Your task to perform on an android device: Search for pizza restaurants on Maps Image 0: 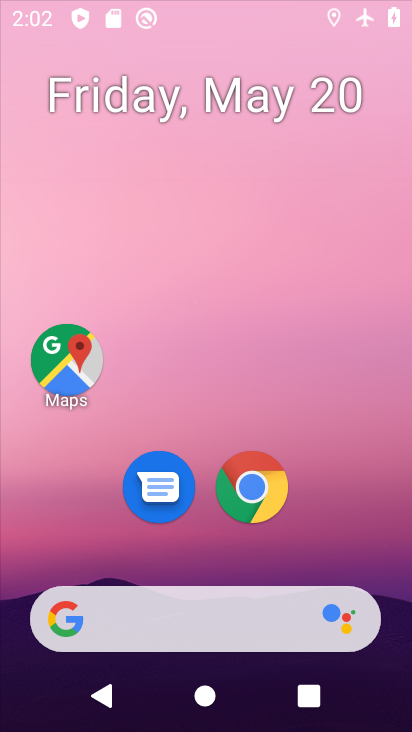
Step 0: click (264, 262)
Your task to perform on an android device: Search for pizza restaurants on Maps Image 1: 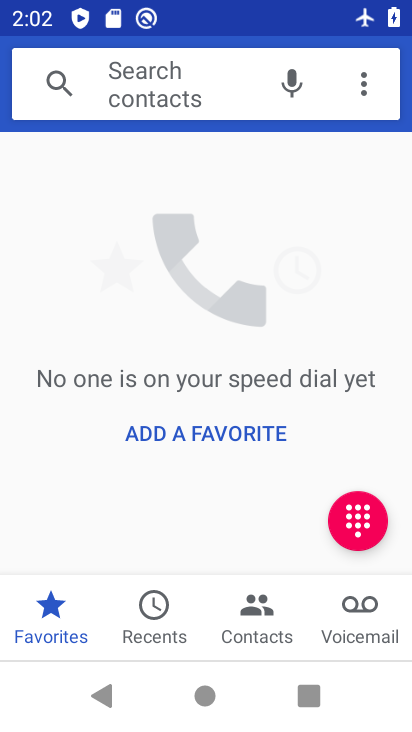
Step 1: press back button
Your task to perform on an android device: Search for pizza restaurants on Maps Image 2: 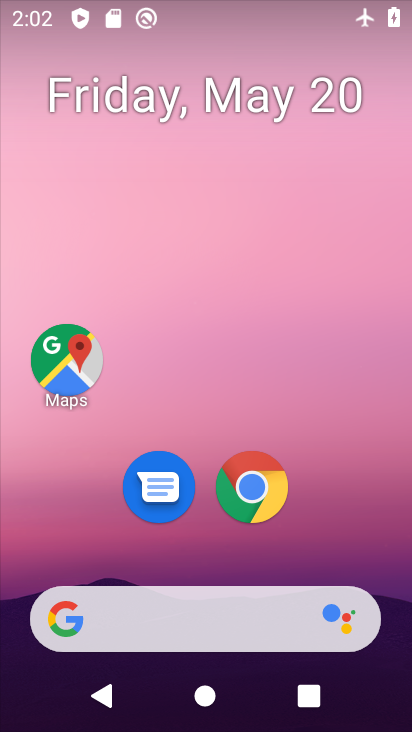
Step 2: drag from (249, 601) to (183, 125)
Your task to perform on an android device: Search for pizza restaurants on Maps Image 3: 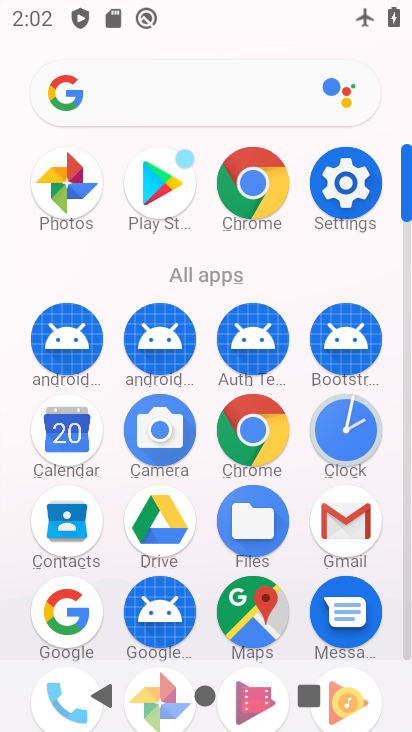
Step 3: click (254, 601)
Your task to perform on an android device: Search for pizza restaurants on Maps Image 4: 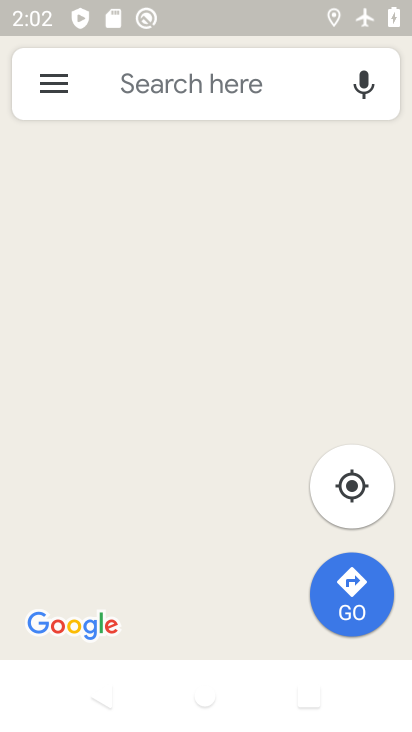
Step 4: click (132, 75)
Your task to perform on an android device: Search for pizza restaurants on Maps Image 5: 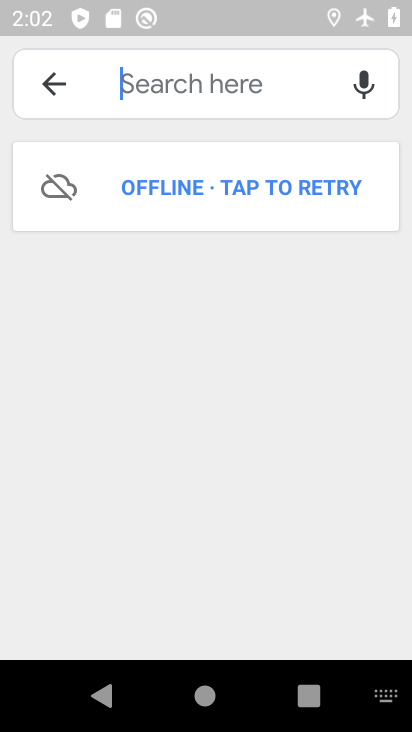
Step 5: task complete